Your task to perform on an android device: What's the weather today? Image 0: 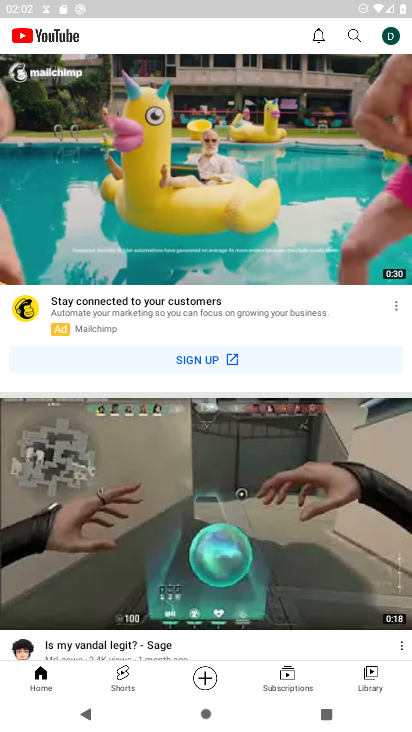
Step 0: press home button
Your task to perform on an android device: What's the weather today? Image 1: 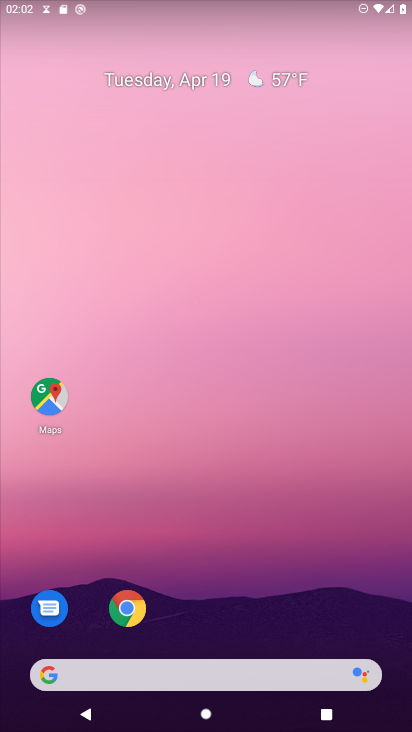
Step 1: drag from (223, 585) to (185, 256)
Your task to perform on an android device: What's the weather today? Image 2: 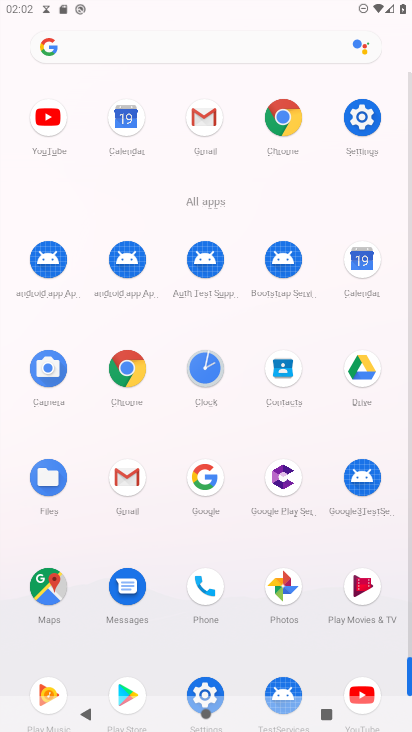
Step 2: click (293, 121)
Your task to perform on an android device: What's the weather today? Image 3: 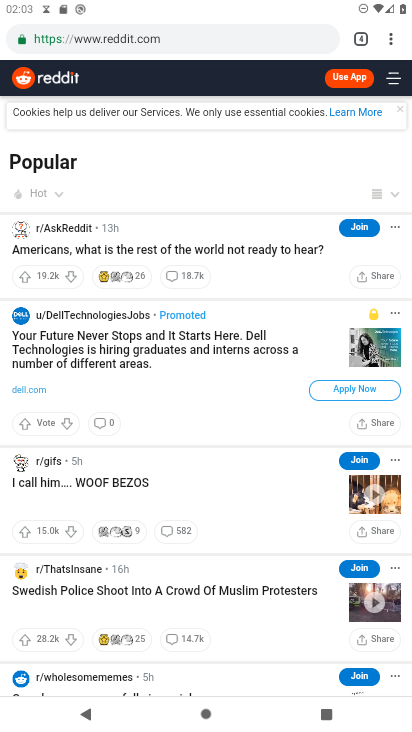
Step 3: click (361, 42)
Your task to perform on an android device: What's the weather today? Image 4: 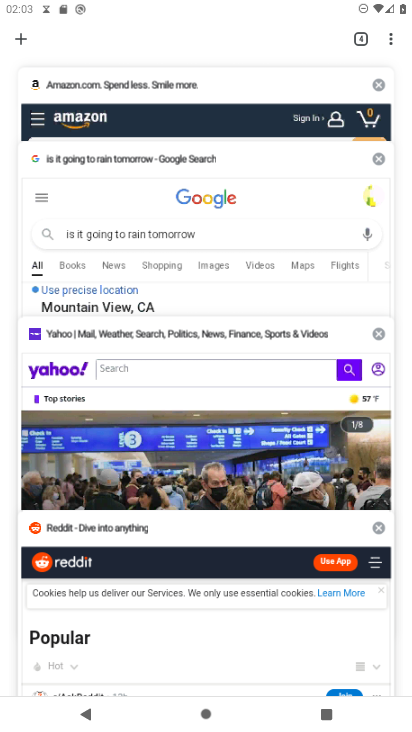
Step 4: click (17, 38)
Your task to perform on an android device: What's the weather today? Image 5: 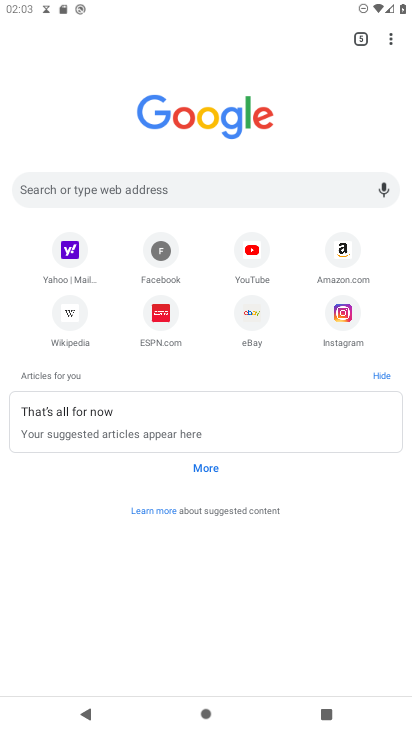
Step 5: click (122, 187)
Your task to perform on an android device: What's the weather today? Image 6: 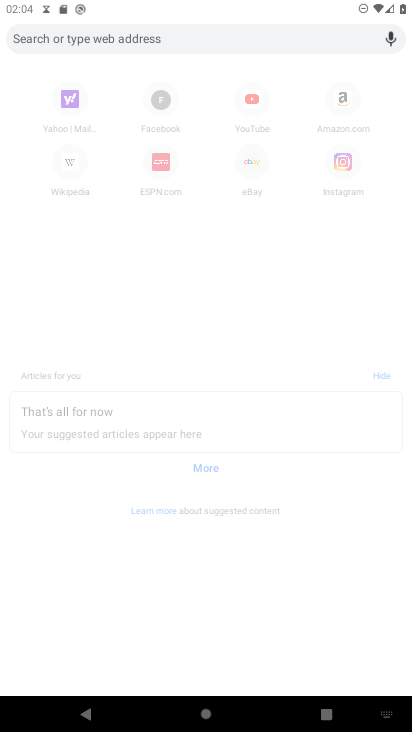
Step 6: type "weather today"
Your task to perform on an android device: What's the weather today? Image 7: 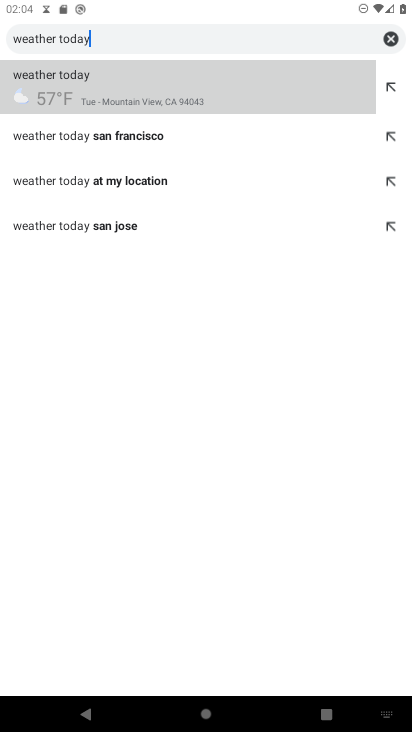
Step 7: task complete